Your task to perform on an android device: Go to calendar. Show me events next week Image 0: 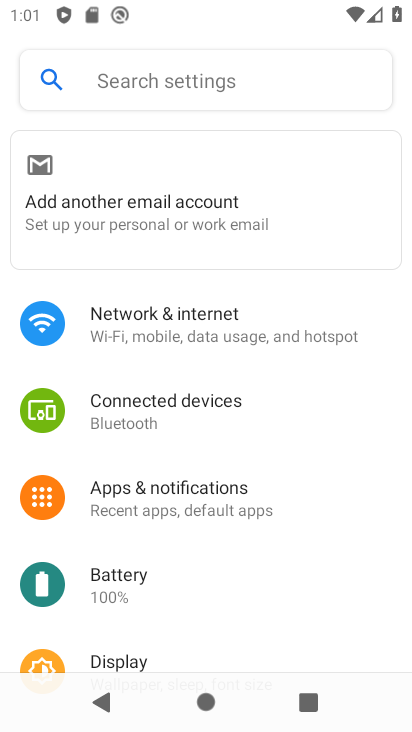
Step 0: press home button
Your task to perform on an android device: Go to calendar. Show me events next week Image 1: 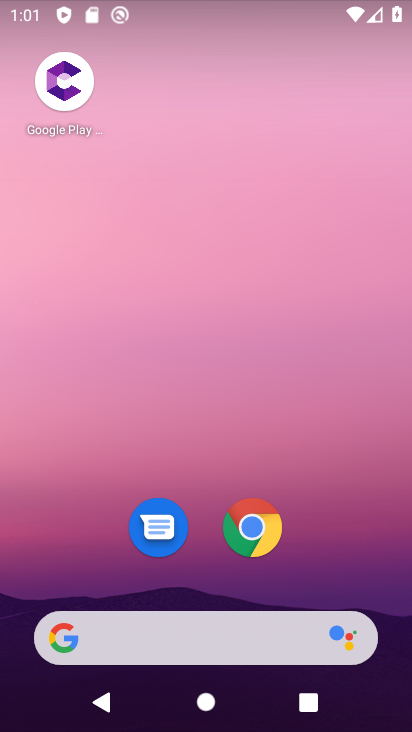
Step 1: drag from (103, 281) to (400, 352)
Your task to perform on an android device: Go to calendar. Show me events next week Image 2: 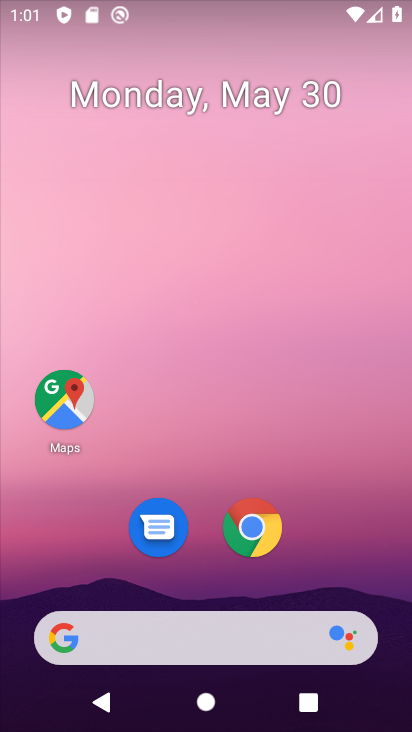
Step 2: click (105, 105)
Your task to perform on an android device: Go to calendar. Show me events next week Image 3: 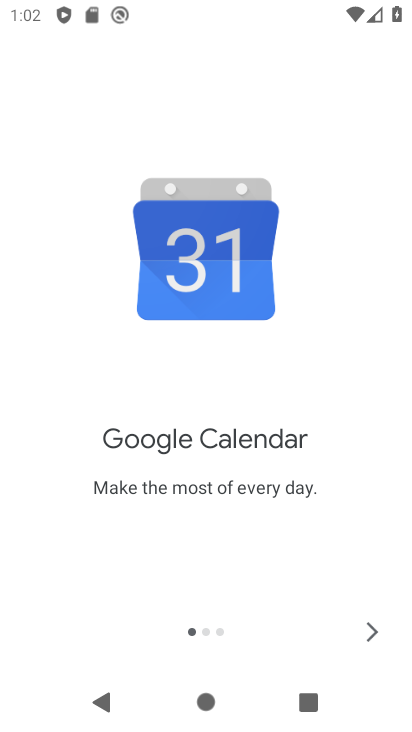
Step 3: click (376, 633)
Your task to perform on an android device: Go to calendar. Show me events next week Image 4: 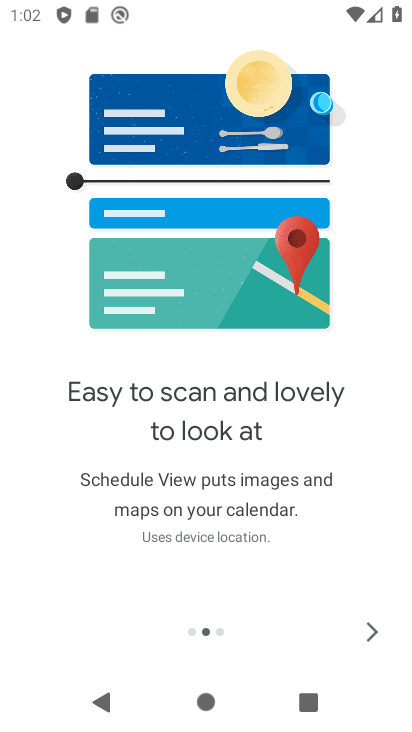
Step 4: click (380, 631)
Your task to perform on an android device: Go to calendar. Show me events next week Image 5: 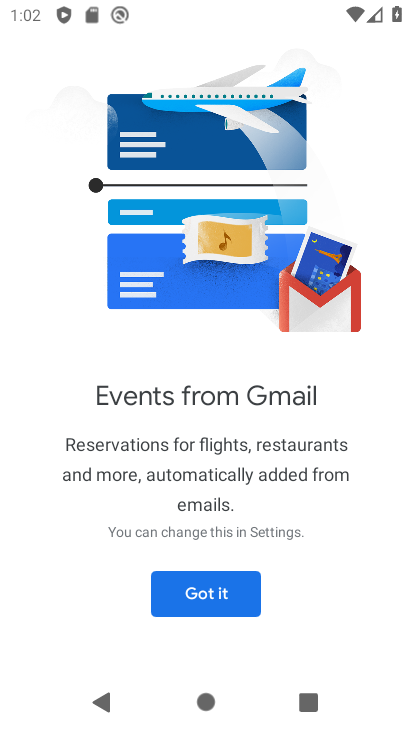
Step 5: click (236, 602)
Your task to perform on an android device: Go to calendar. Show me events next week Image 6: 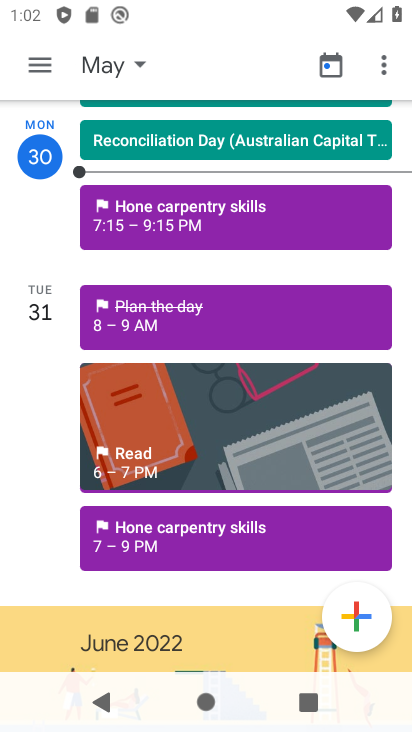
Step 6: click (113, 73)
Your task to perform on an android device: Go to calendar. Show me events next week Image 7: 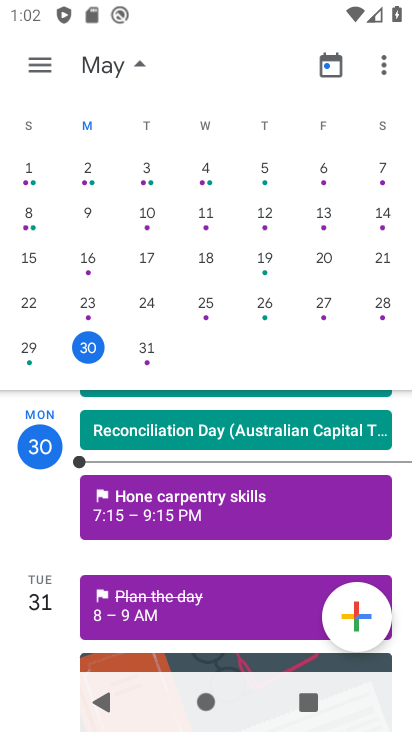
Step 7: task complete